Your task to perform on an android device: Open eBay Image 0: 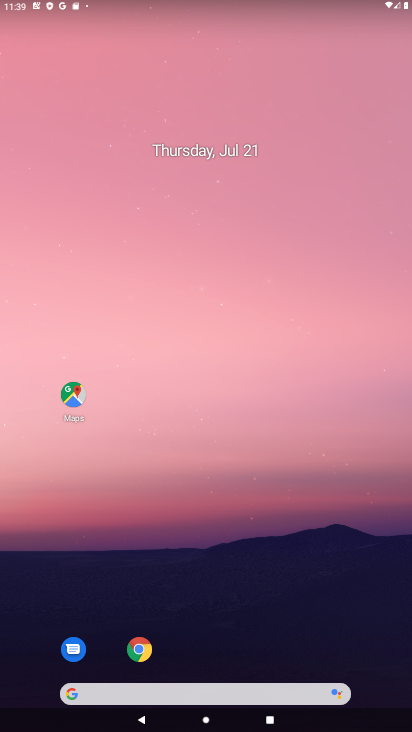
Step 0: click (136, 655)
Your task to perform on an android device: Open eBay Image 1: 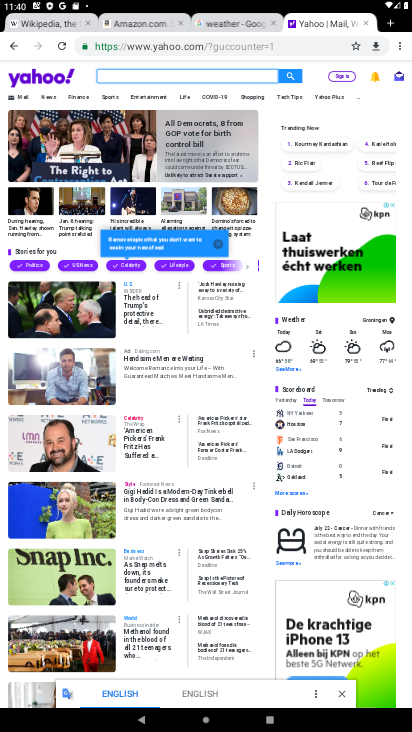
Step 1: click (400, 49)
Your task to perform on an android device: Open eBay Image 2: 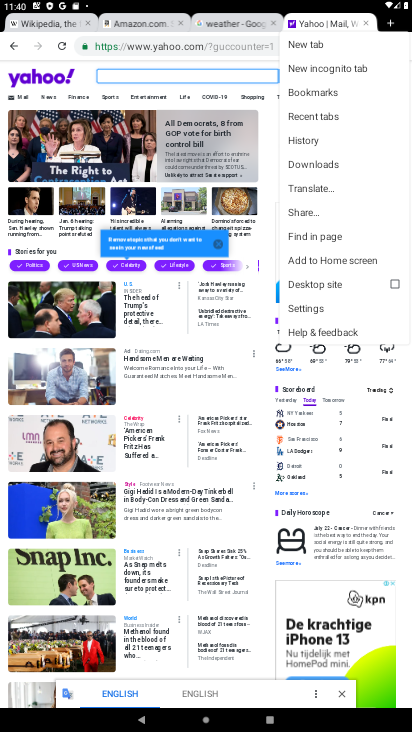
Step 2: click (300, 45)
Your task to perform on an android device: Open eBay Image 3: 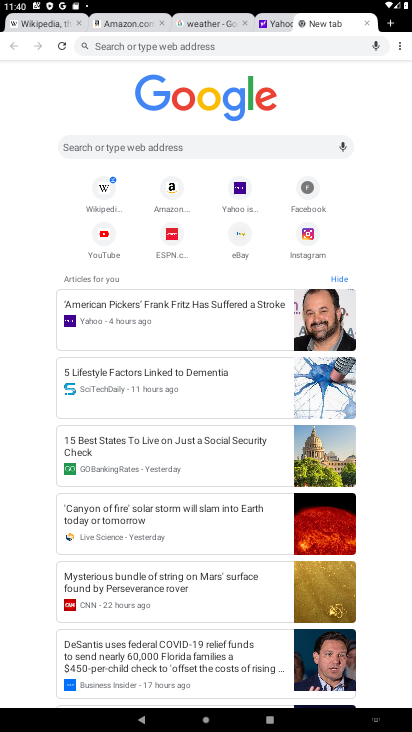
Step 3: click (240, 236)
Your task to perform on an android device: Open eBay Image 4: 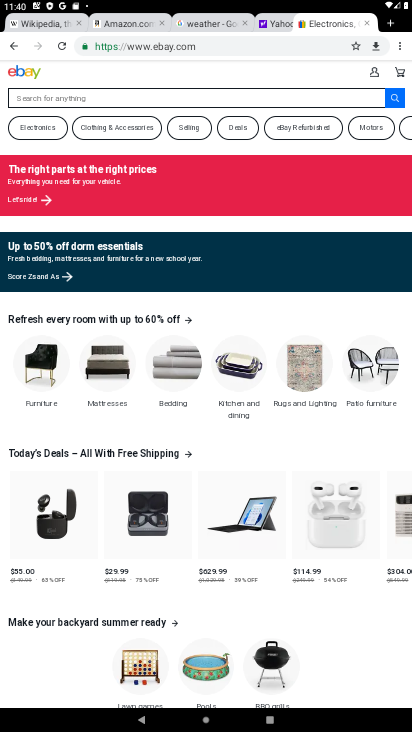
Step 4: task complete